Your task to perform on an android device: Open calendar and show me the third week of next month Image 0: 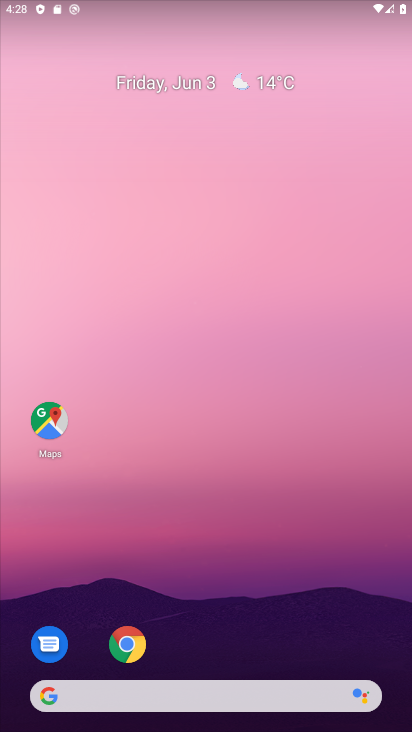
Step 0: click (190, 92)
Your task to perform on an android device: Open calendar and show me the third week of next month Image 1: 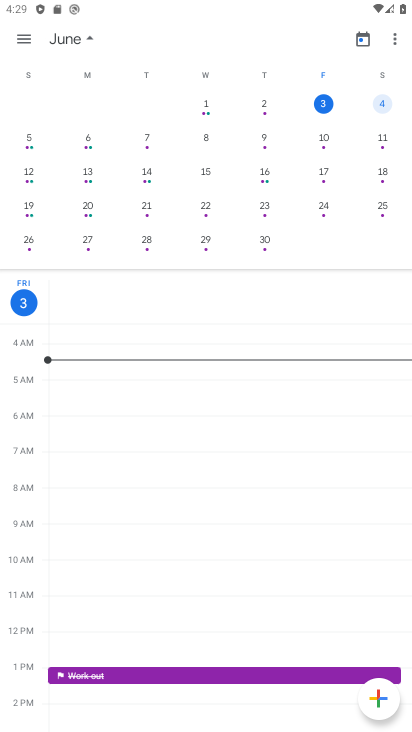
Step 1: drag from (371, 225) to (74, 212)
Your task to perform on an android device: Open calendar and show me the third week of next month Image 2: 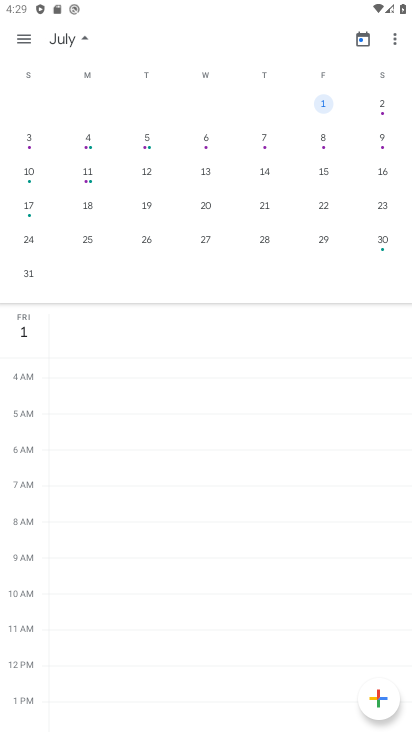
Step 2: click (319, 172)
Your task to perform on an android device: Open calendar and show me the third week of next month Image 3: 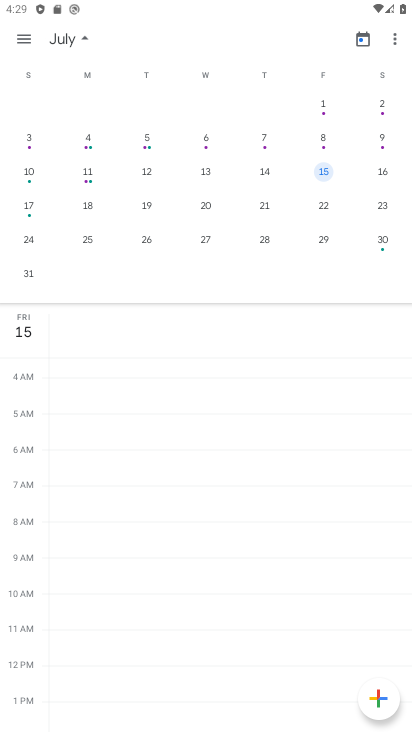
Step 3: task complete